Your task to perform on an android device: Play the last video I watched on Youtube Image 0: 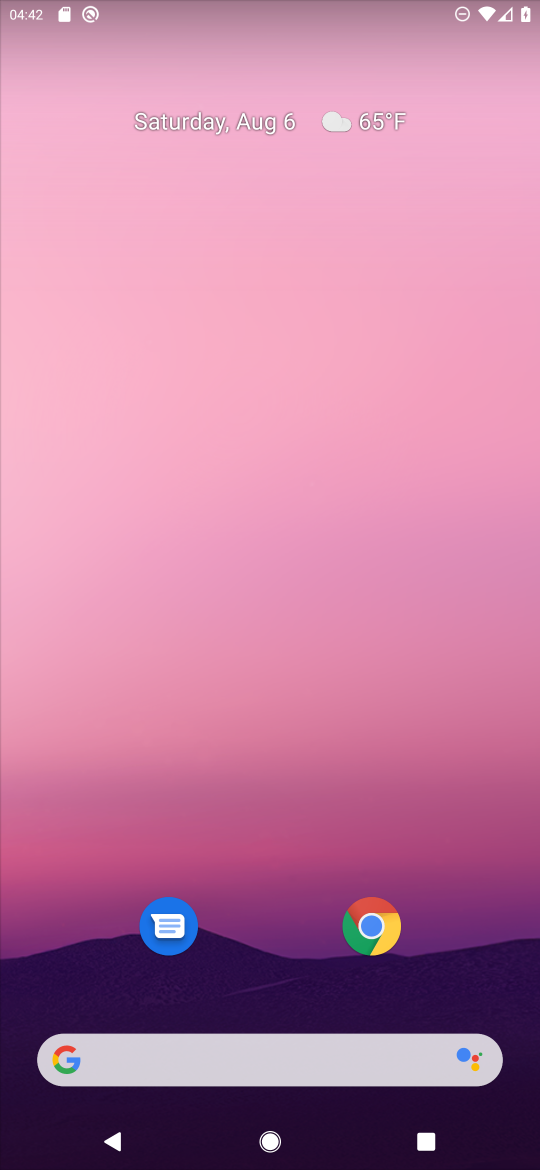
Step 0: drag from (253, 933) to (281, 419)
Your task to perform on an android device: Play the last video I watched on Youtube Image 1: 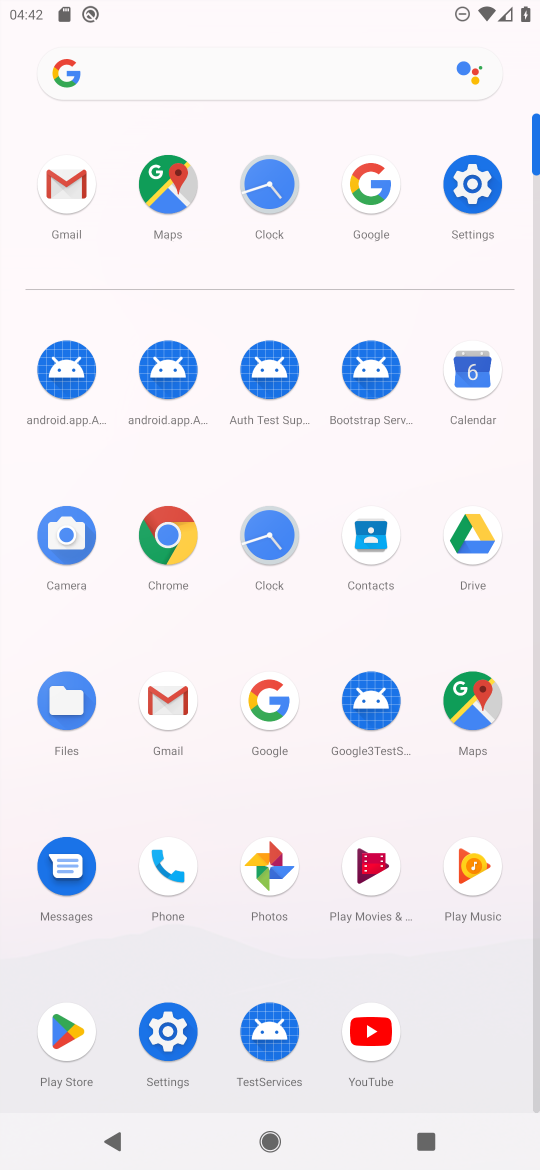
Step 1: click (364, 1006)
Your task to perform on an android device: Play the last video I watched on Youtube Image 2: 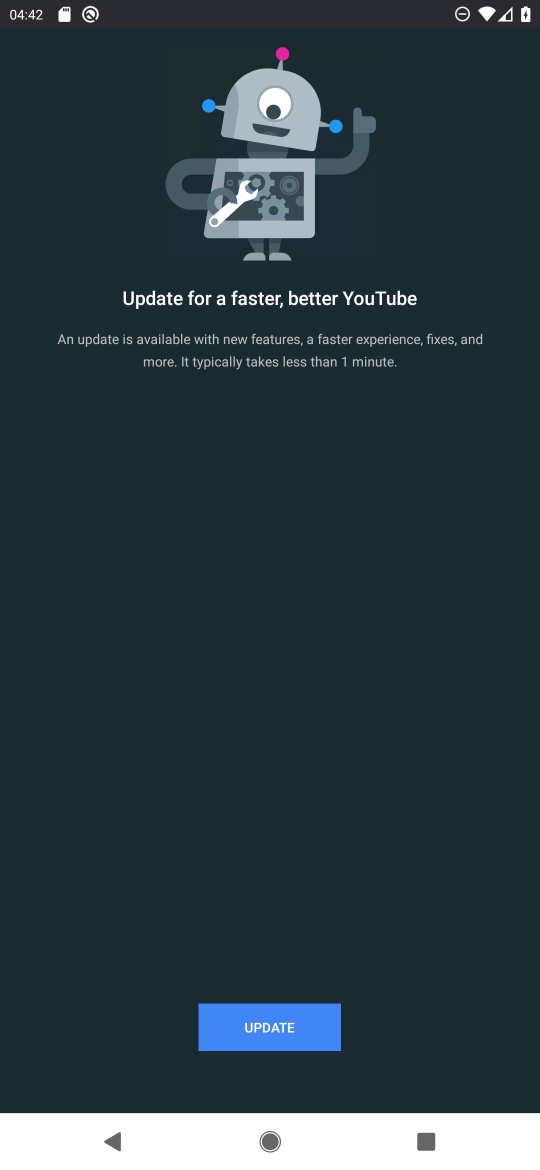
Step 2: click (277, 1017)
Your task to perform on an android device: Play the last video I watched on Youtube Image 3: 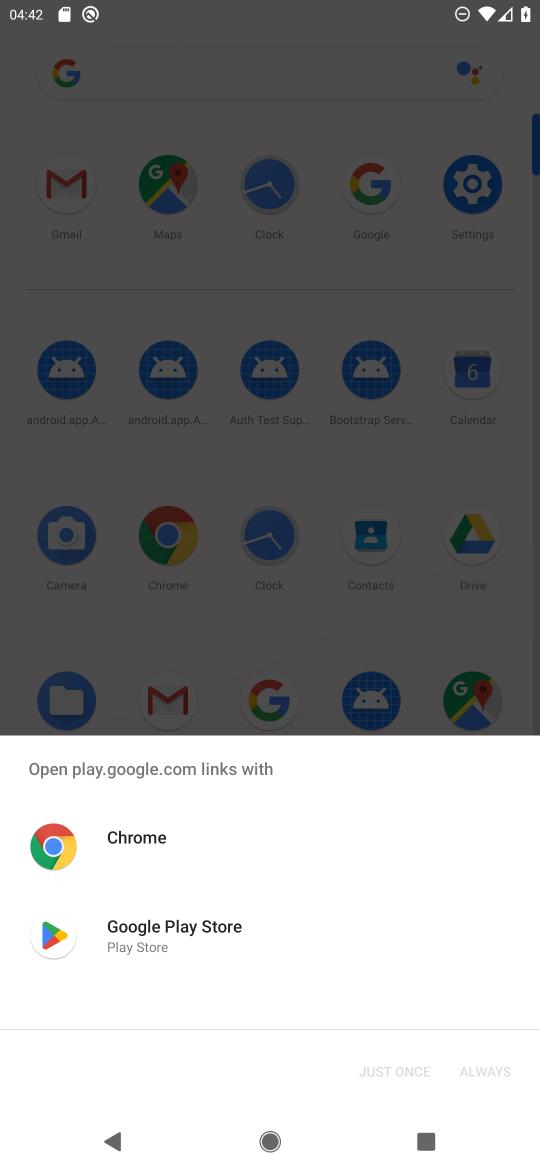
Step 3: click (223, 935)
Your task to perform on an android device: Play the last video I watched on Youtube Image 4: 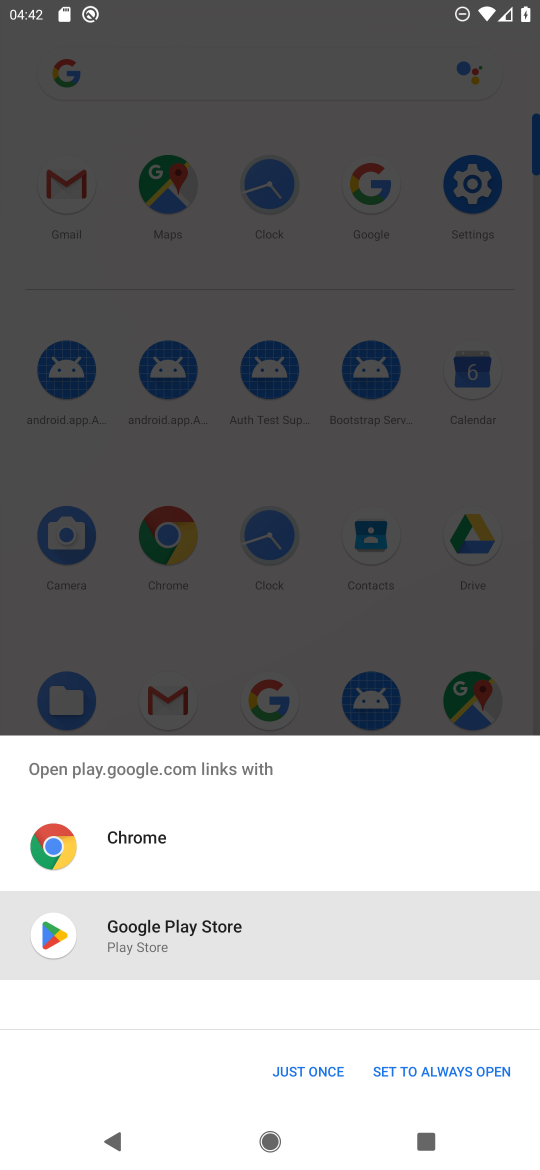
Step 4: click (291, 1070)
Your task to perform on an android device: Play the last video I watched on Youtube Image 5: 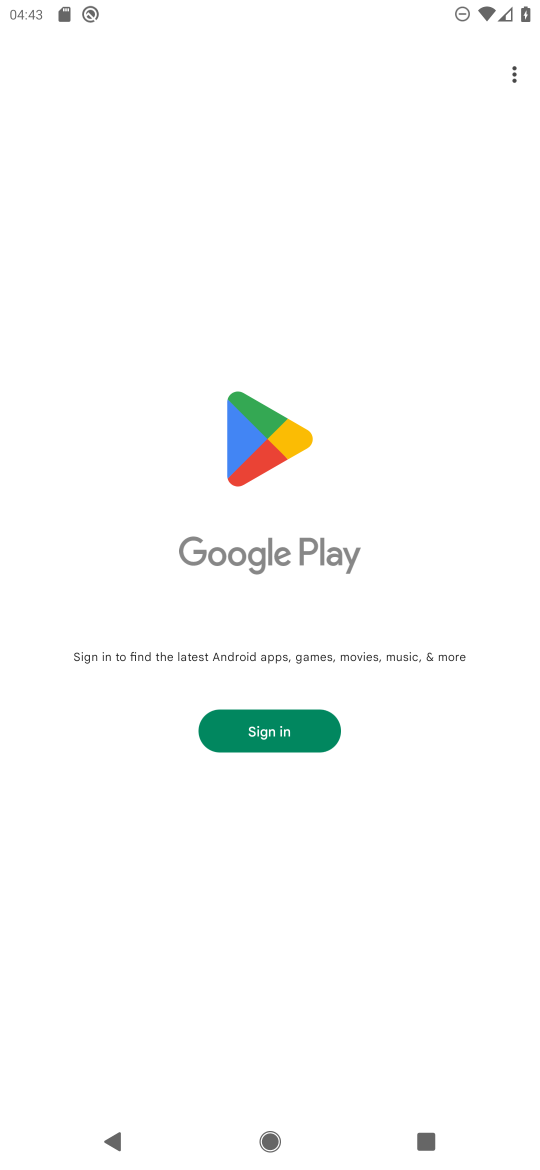
Step 5: task complete